Your task to perform on an android device: What's the weather going to be this weekend? Image 0: 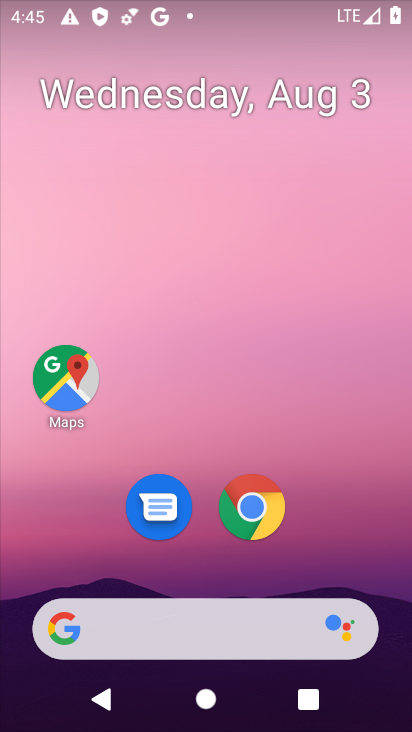
Step 0: drag from (384, 560) to (308, 75)
Your task to perform on an android device: What's the weather going to be this weekend? Image 1: 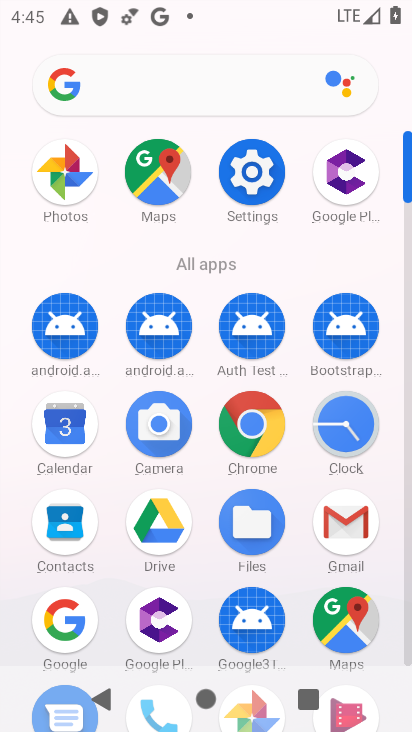
Step 1: click (254, 428)
Your task to perform on an android device: What's the weather going to be this weekend? Image 2: 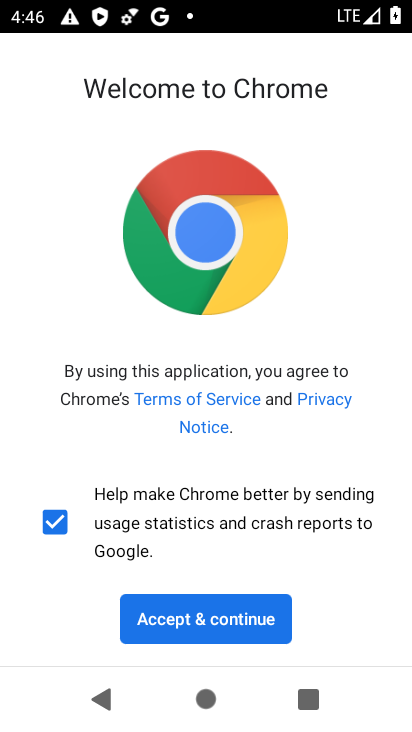
Step 2: click (210, 621)
Your task to perform on an android device: What's the weather going to be this weekend? Image 3: 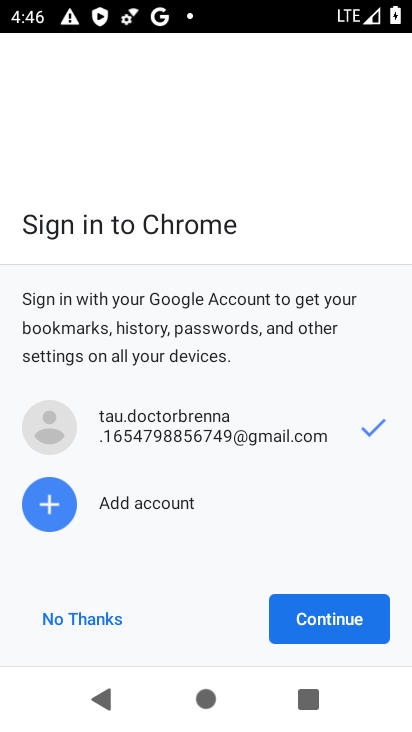
Step 3: click (339, 609)
Your task to perform on an android device: What's the weather going to be this weekend? Image 4: 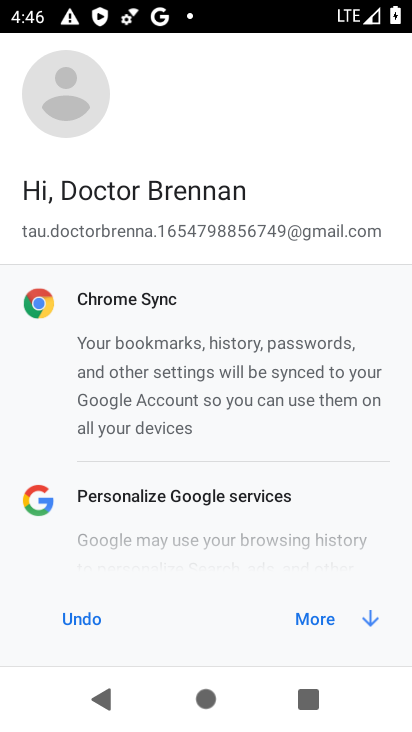
Step 4: click (307, 622)
Your task to perform on an android device: What's the weather going to be this weekend? Image 5: 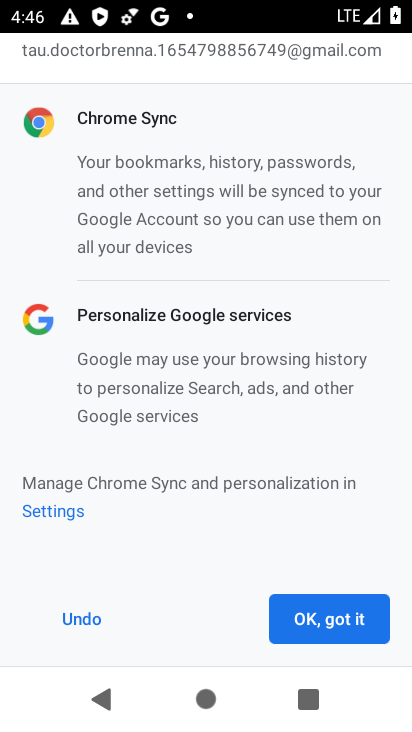
Step 5: click (350, 609)
Your task to perform on an android device: What's the weather going to be this weekend? Image 6: 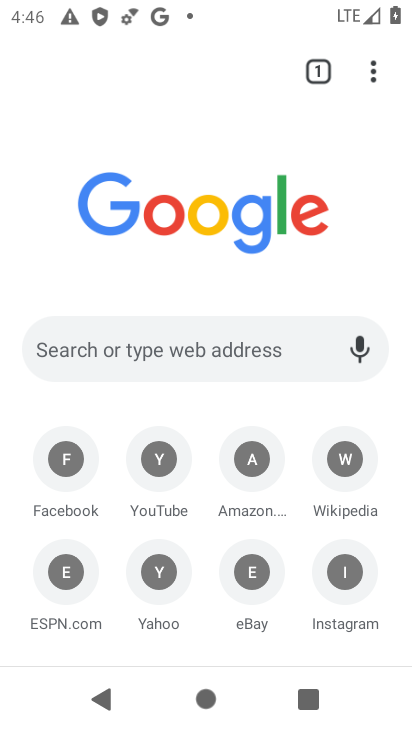
Step 6: click (229, 341)
Your task to perform on an android device: What's the weather going to be this weekend? Image 7: 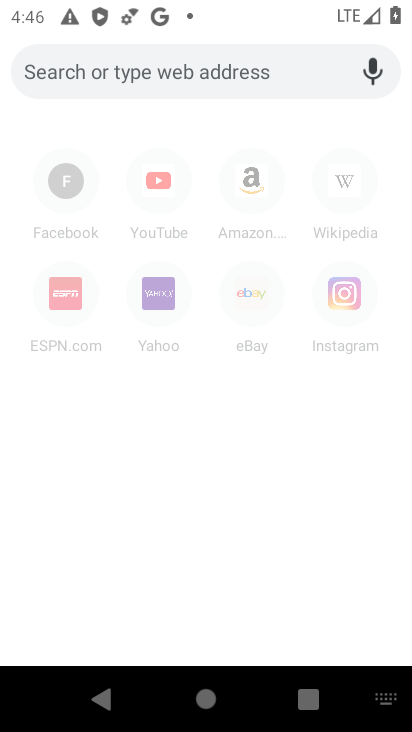
Step 7: type "weather"
Your task to perform on an android device: What's the weather going to be this weekend? Image 8: 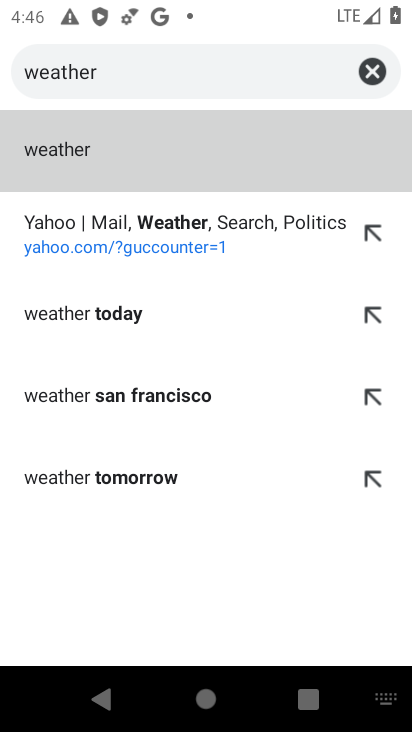
Step 8: press enter
Your task to perform on an android device: What's the weather going to be this weekend? Image 9: 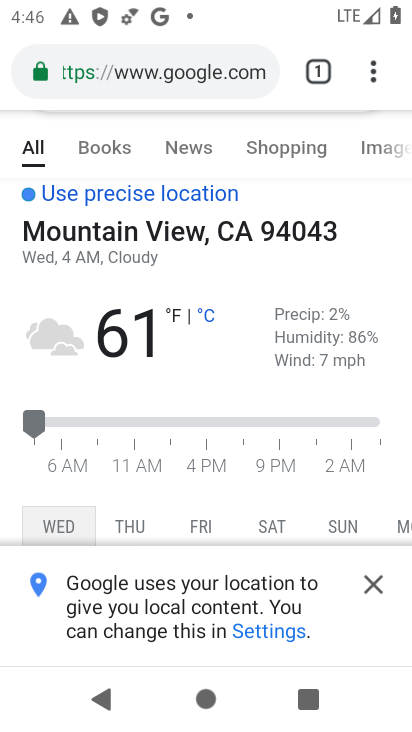
Step 9: drag from (211, 468) to (242, 102)
Your task to perform on an android device: What's the weather going to be this weekend? Image 10: 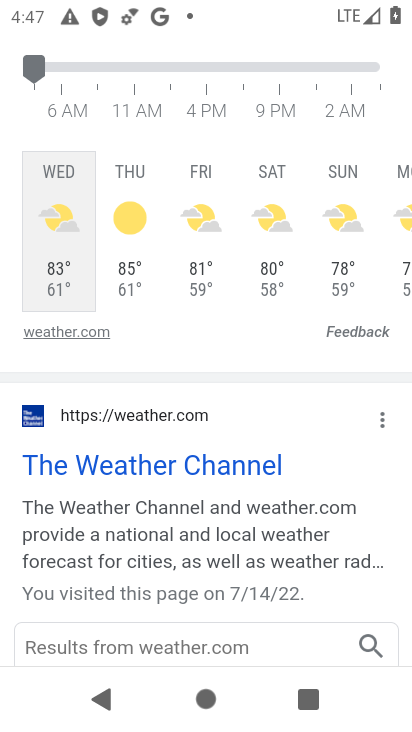
Step 10: click (272, 225)
Your task to perform on an android device: What's the weather going to be this weekend? Image 11: 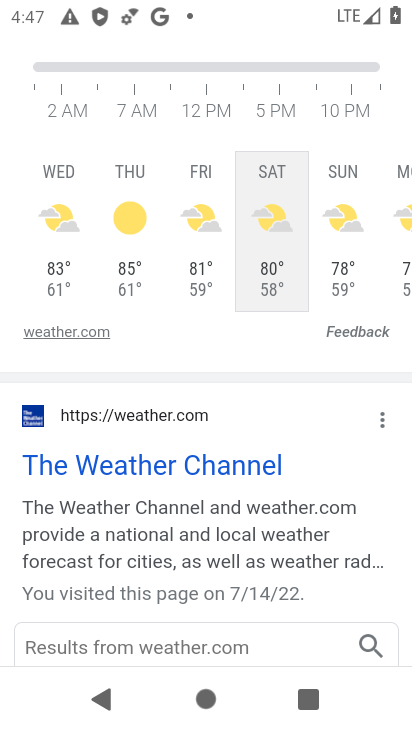
Step 11: task complete